Your task to perform on an android device: Open settings Image 0: 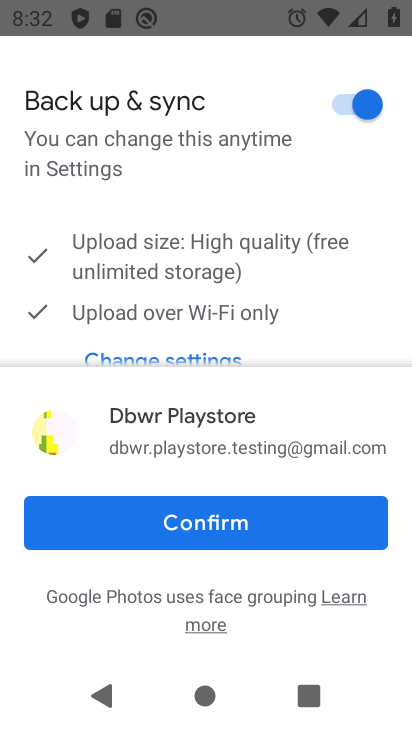
Step 0: press home button
Your task to perform on an android device: Open settings Image 1: 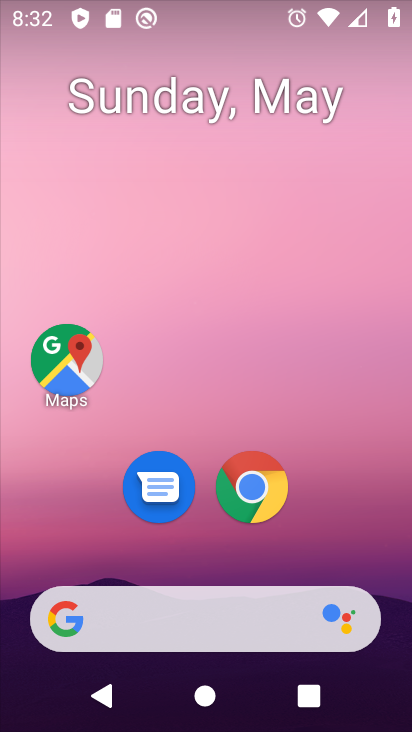
Step 1: drag from (236, 394) to (362, 64)
Your task to perform on an android device: Open settings Image 2: 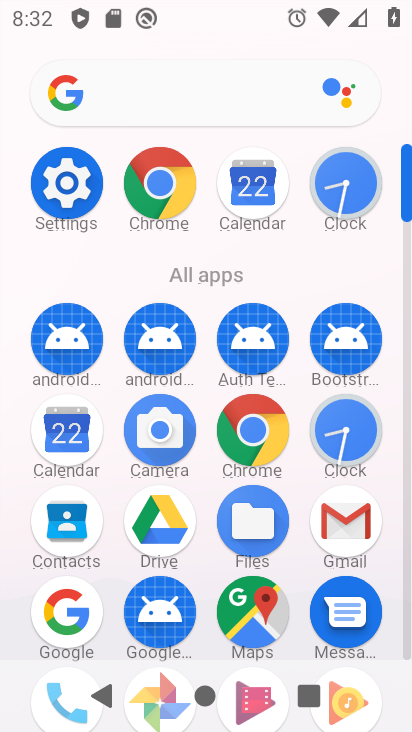
Step 2: click (51, 192)
Your task to perform on an android device: Open settings Image 3: 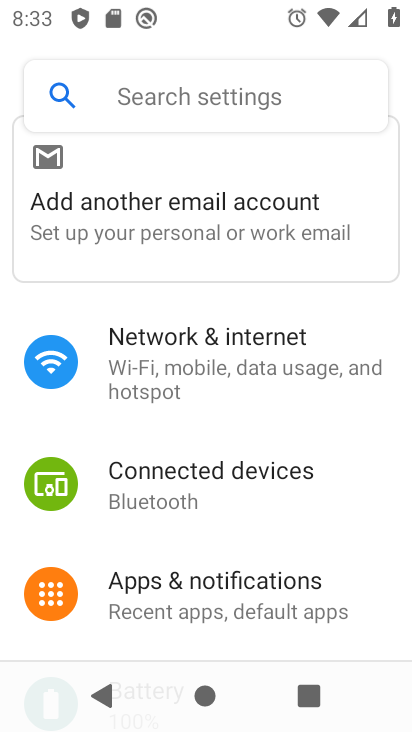
Step 3: task complete